Your task to perform on an android device: Go to notification settings Image 0: 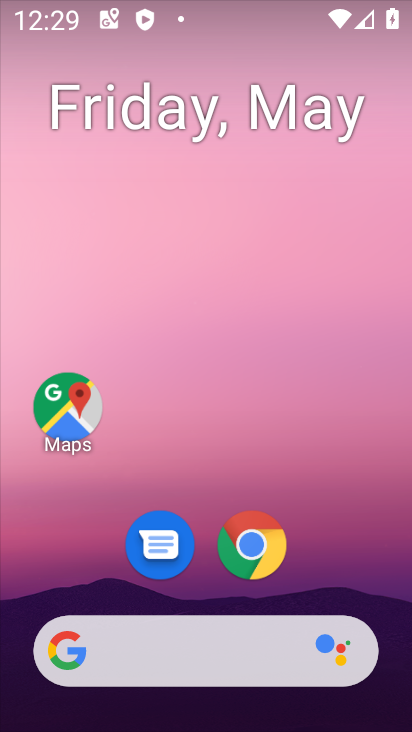
Step 0: drag from (354, 561) to (350, 207)
Your task to perform on an android device: Go to notification settings Image 1: 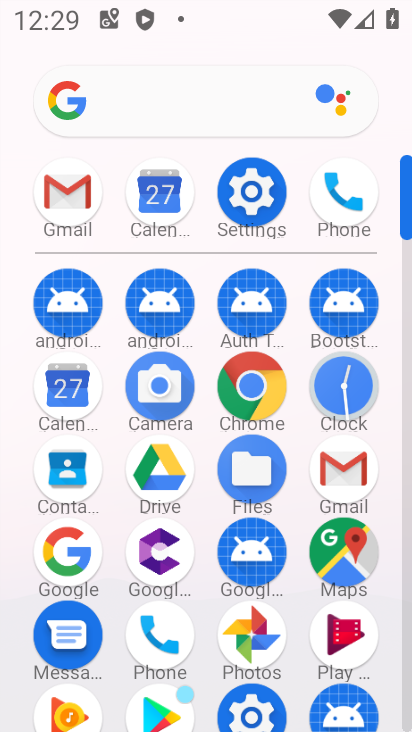
Step 1: click (260, 192)
Your task to perform on an android device: Go to notification settings Image 2: 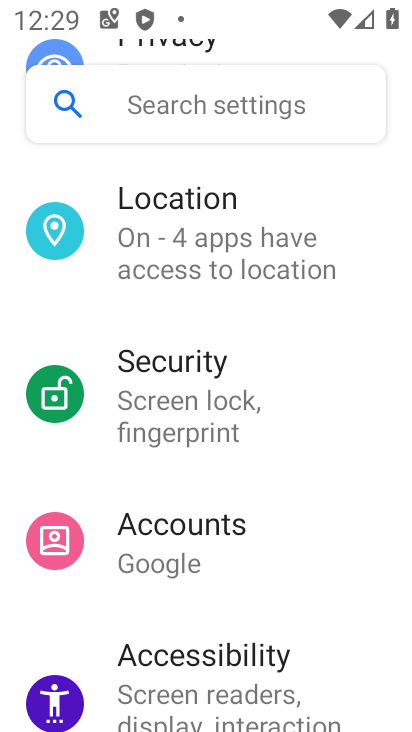
Step 2: drag from (217, 251) to (209, 718)
Your task to perform on an android device: Go to notification settings Image 3: 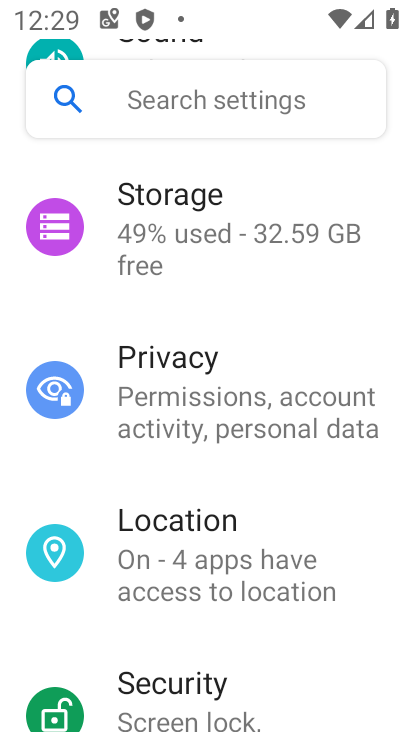
Step 3: drag from (218, 294) to (273, 642)
Your task to perform on an android device: Go to notification settings Image 4: 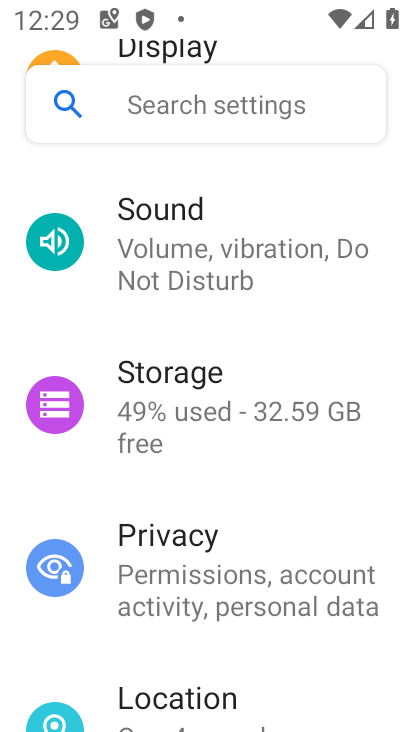
Step 4: drag from (260, 265) to (285, 720)
Your task to perform on an android device: Go to notification settings Image 5: 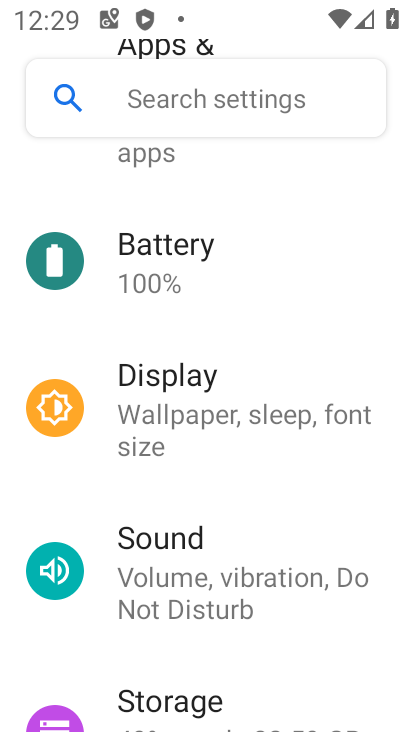
Step 5: drag from (230, 212) to (237, 615)
Your task to perform on an android device: Go to notification settings Image 6: 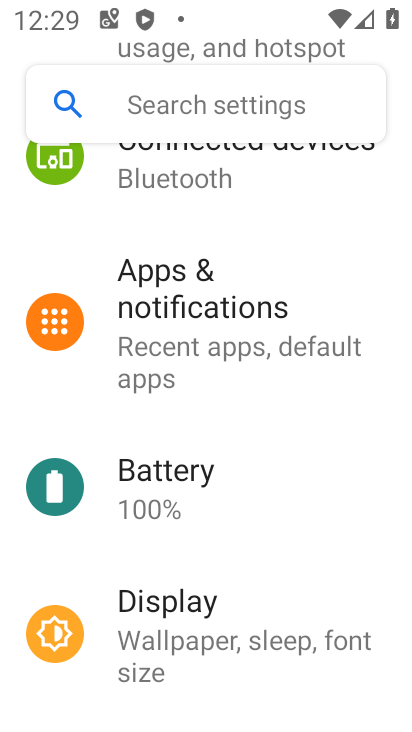
Step 6: click (223, 306)
Your task to perform on an android device: Go to notification settings Image 7: 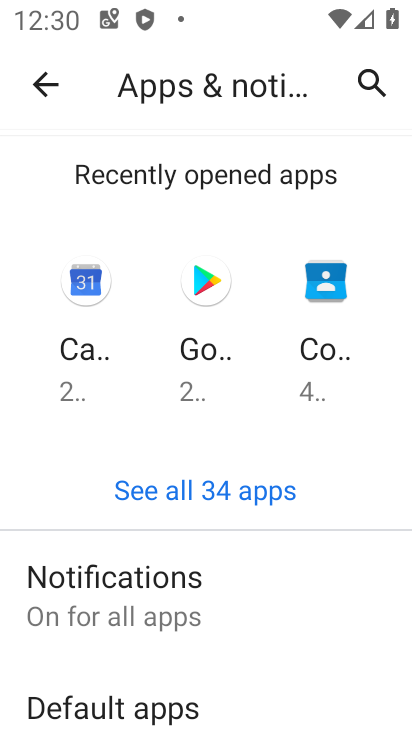
Step 7: task complete